Your task to perform on an android device: What's on my calendar tomorrow? Image 0: 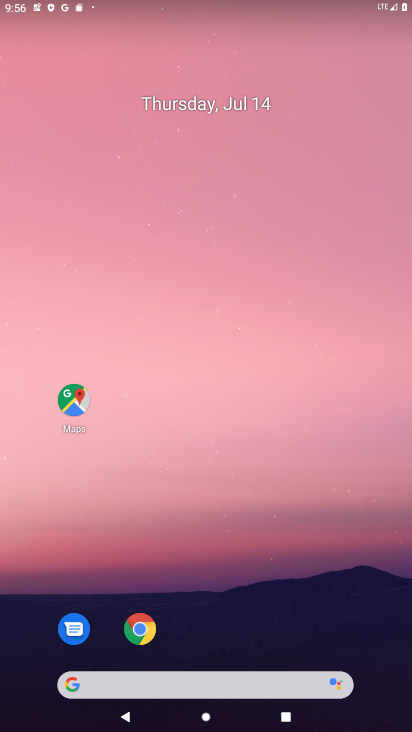
Step 0: drag from (46, 504) to (283, 47)
Your task to perform on an android device: What's on my calendar tomorrow? Image 1: 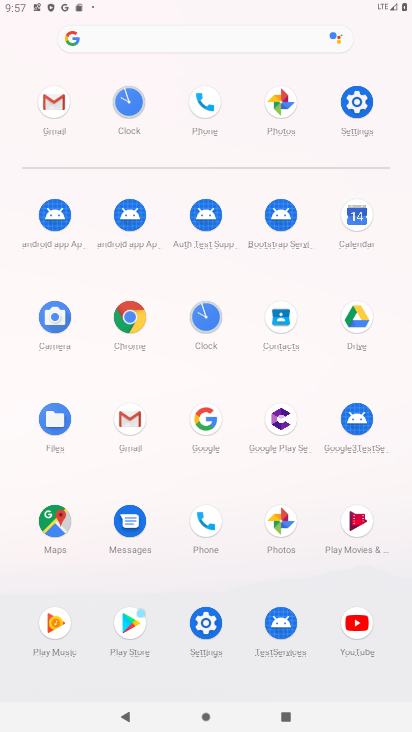
Step 1: click (344, 228)
Your task to perform on an android device: What's on my calendar tomorrow? Image 2: 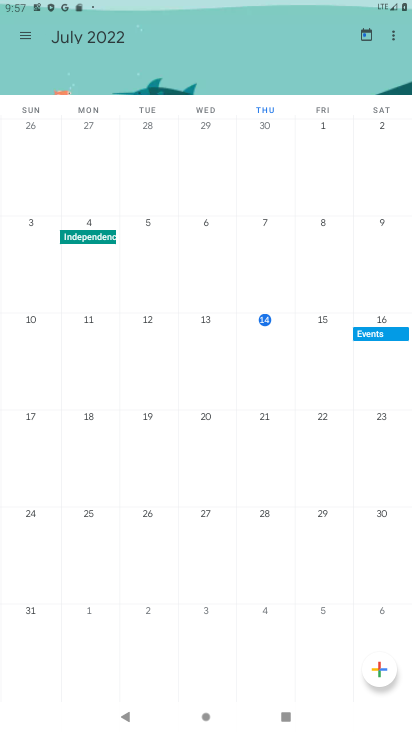
Step 2: task complete